Your task to perform on an android device: toggle improve location accuracy Image 0: 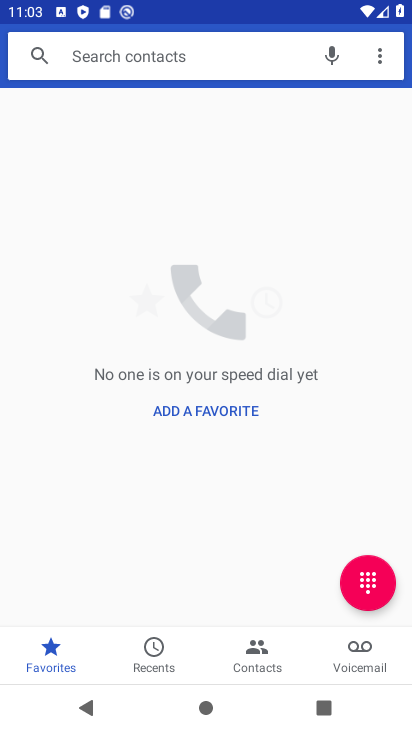
Step 0: press home button
Your task to perform on an android device: toggle improve location accuracy Image 1: 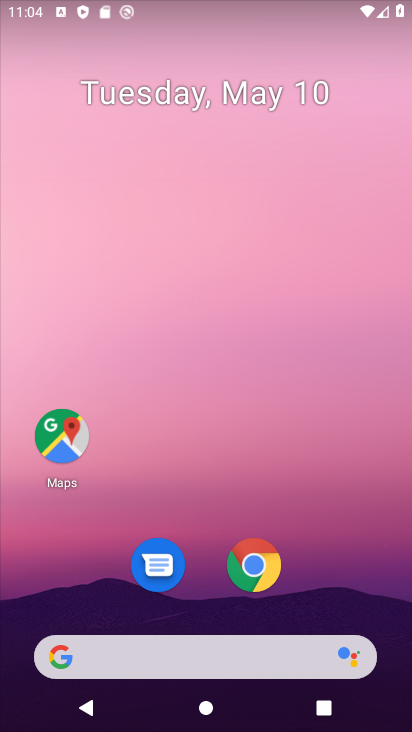
Step 1: drag from (76, 489) to (243, 133)
Your task to perform on an android device: toggle improve location accuracy Image 2: 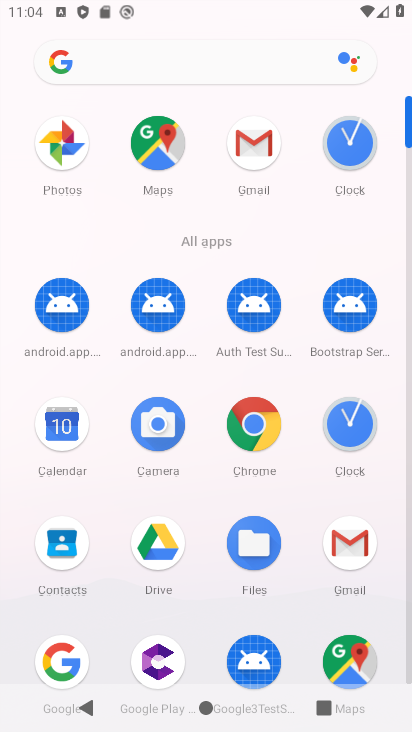
Step 2: drag from (121, 646) to (280, 149)
Your task to perform on an android device: toggle improve location accuracy Image 3: 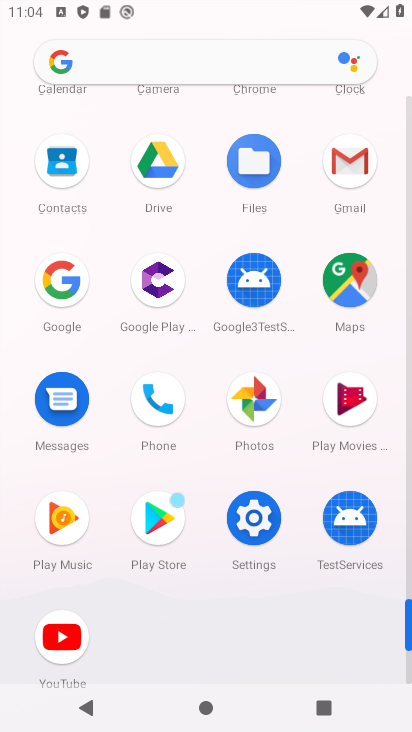
Step 3: click (243, 508)
Your task to perform on an android device: toggle improve location accuracy Image 4: 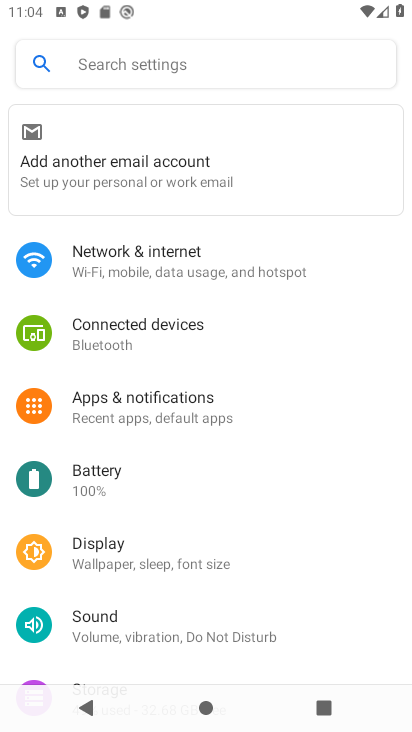
Step 4: drag from (143, 657) to (258, 238)
Your task to perform on an android device: toggle improve location accuracy Image 5: 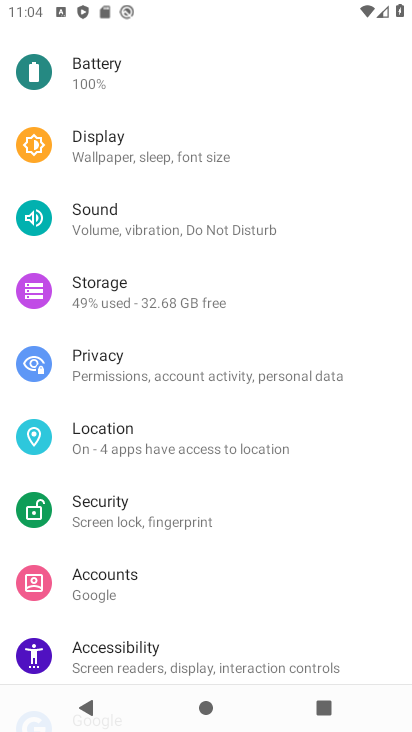
Step 5: click (91, 441)
Your task to perform on an android device: toggle improve location accuracy Image 6: 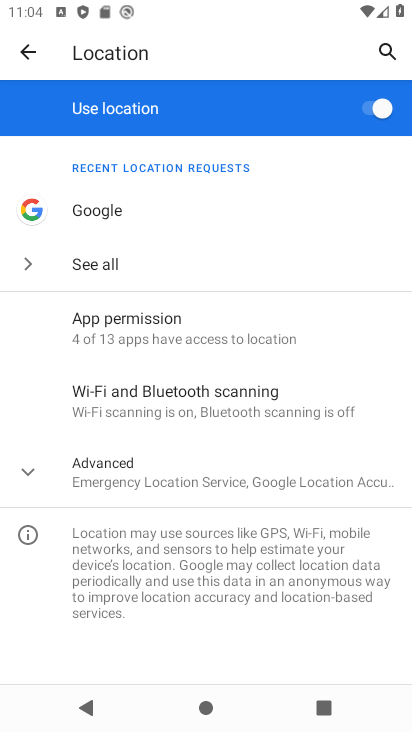
Step 6: click (375, 111)
Your task to perform on an android device: toggle improve location accuracy Image 7: 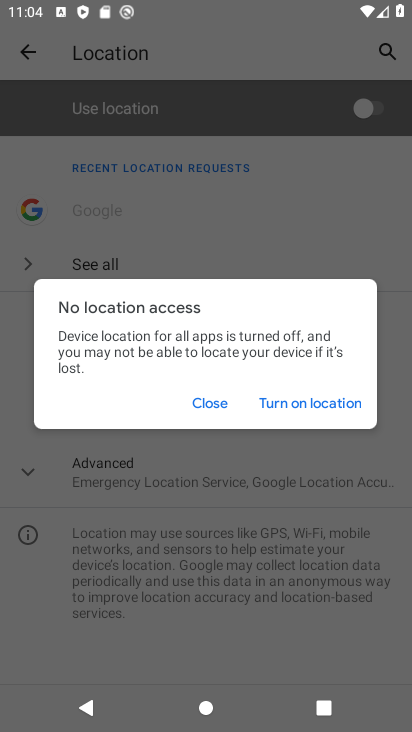
Step 7: task complete